Your task to perform on an android device: change the clock display to show seconds Image 0: 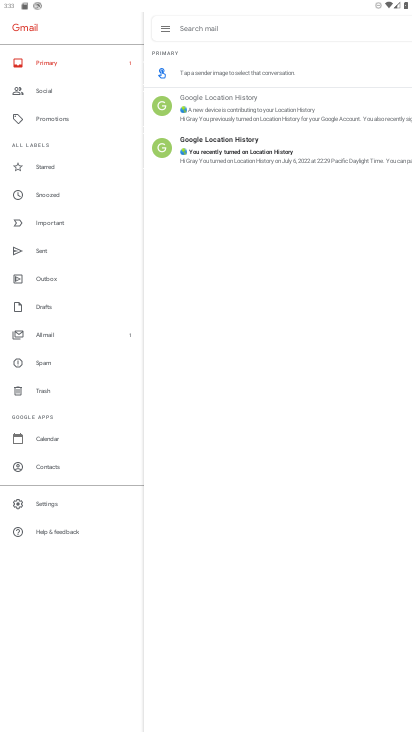
Step 0: press home button
Your task to perform on an android device: change the clock display to show seconds Image 1: 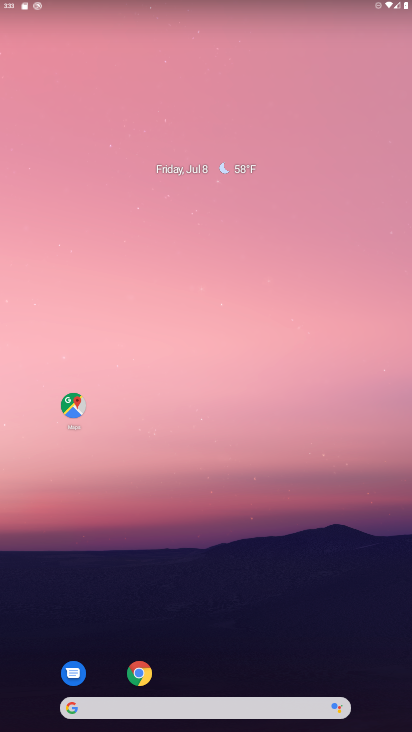
Step 1: drag from (249, 513) to (270, 362)
Your task to perform on an android device: change the clock display to show seconds Image 2: 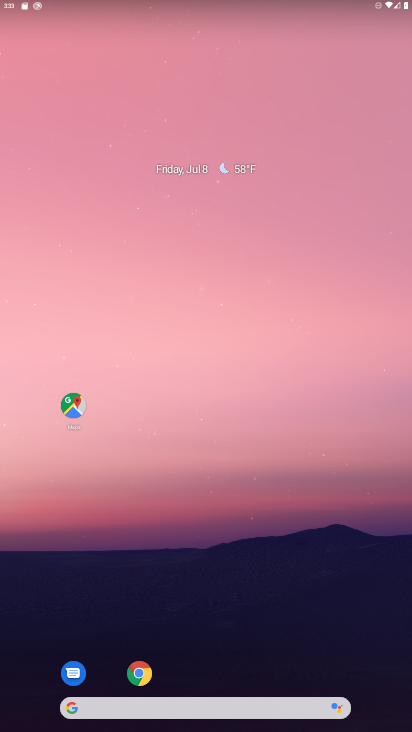
Step 2: drag from (269, 520) to (345, 214)
Your task to perform on an android device: change the clock display to show seconds Image 3: 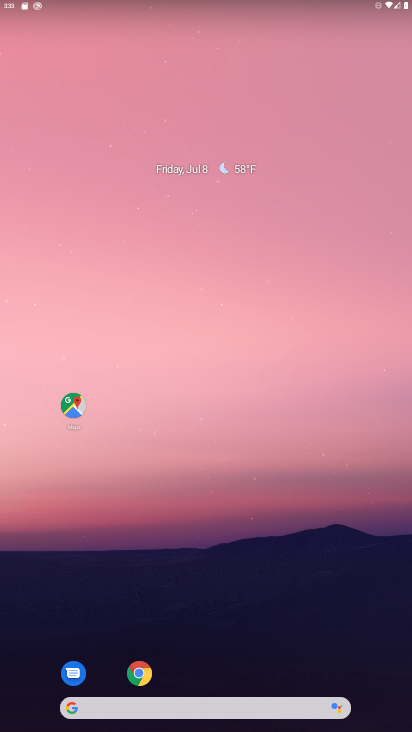
Step 3: drag from (262, 595) to (323, 262)
Your task to perform on an android device: change the clock display to show seconds Image 4: 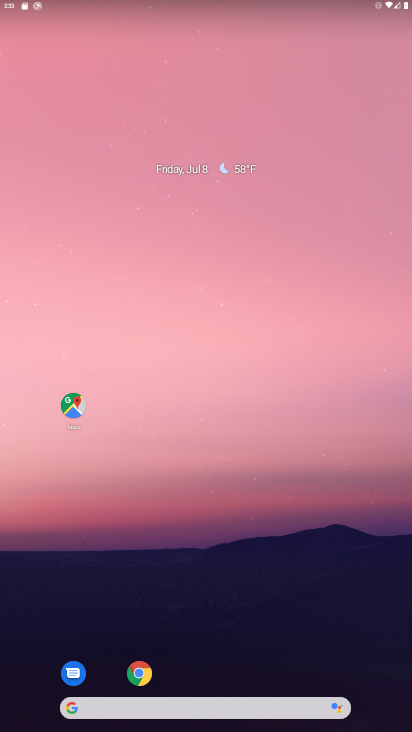
Step 4: drag from (175, 662) to (221, 288)
Your task to perform on an android device: change the clock display to show seconds Image 5: 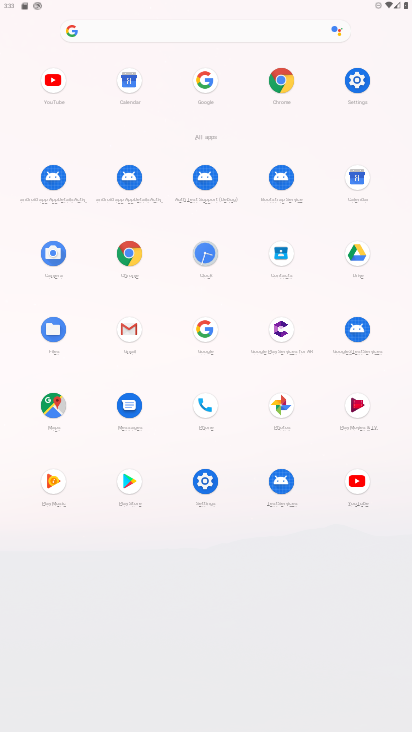
Step 5: click (208, 249)
Your task to perform on an android device: change the clock display to show seconds Image 6: 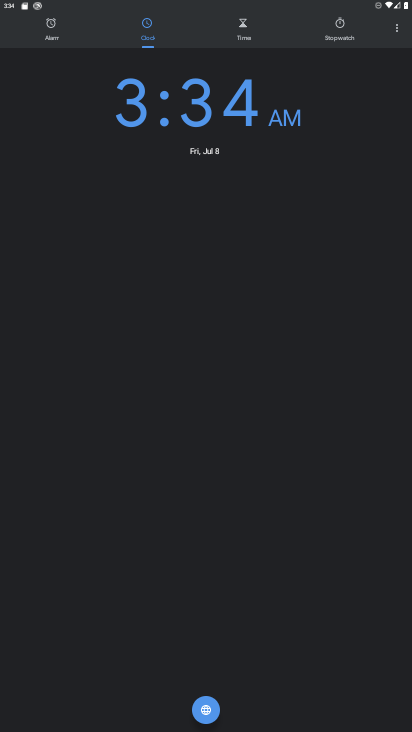
Step 6: click (396, 33)
Your task to perform on an android device: change the clock display to show seconds Image 7: 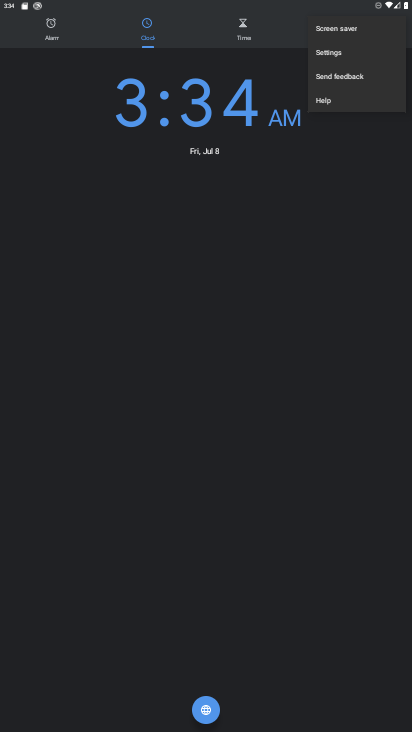
Step 7: click (345, 63)
Your task to perform on an android device: change the clock display to show seconds Image 8: 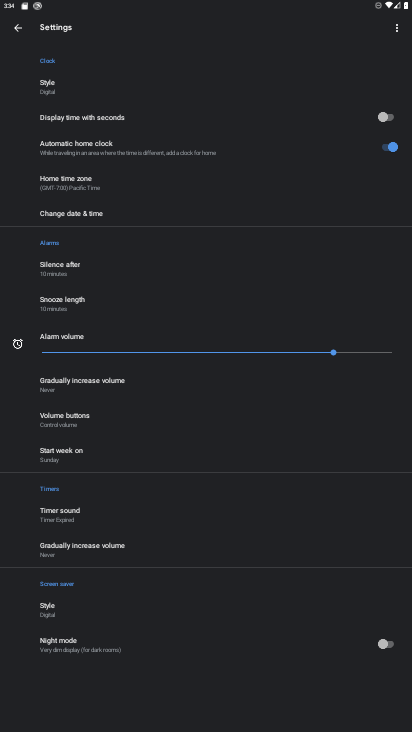
Step 8: click (391, 120)
Your task to perform on an android device: change the clock display to show seconds Image 9: 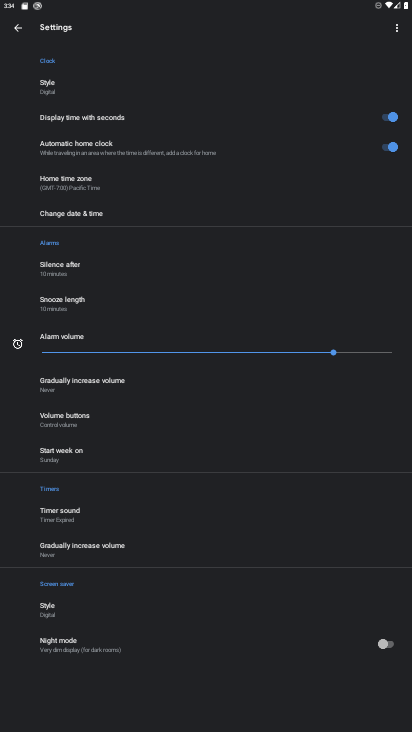
Step 9: task complete